Your task to perform on an android device: Do I have any events today? Image 0: 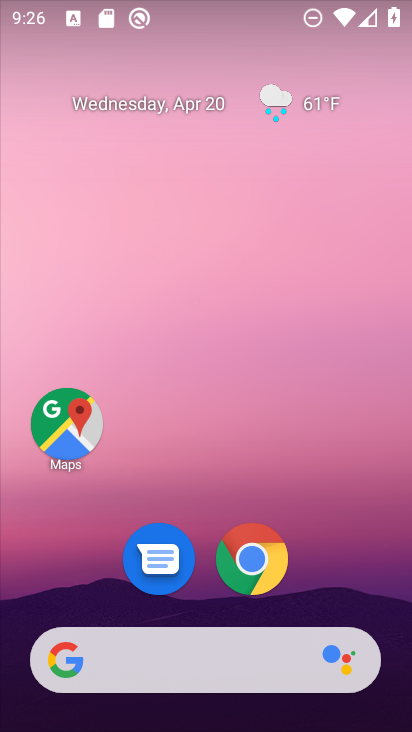
Step 0: drag from (381, 593) to (250, 69)
Your task to perform on an android device: Do I have any events today? Image 1: 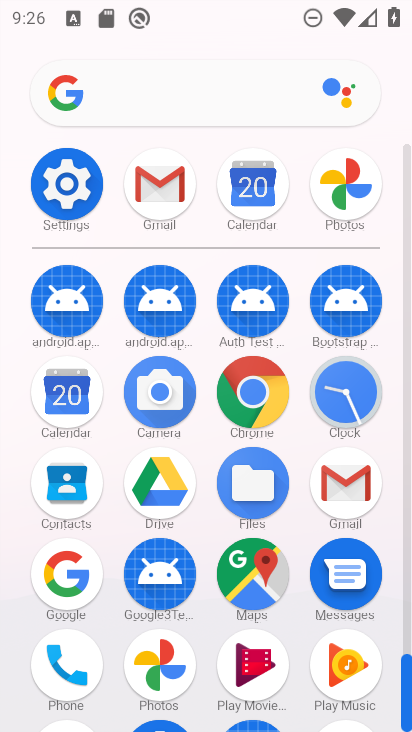
Step 1: click (64, 395)
Your task to perform on an android device: Do I have any events today? Image 2: 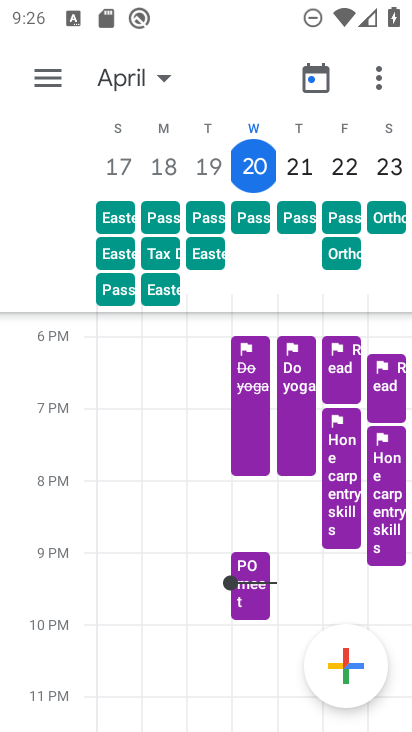
Step 2: click (42, 74)
Your task to perform on an android device: Do I have any events today? Image 3: 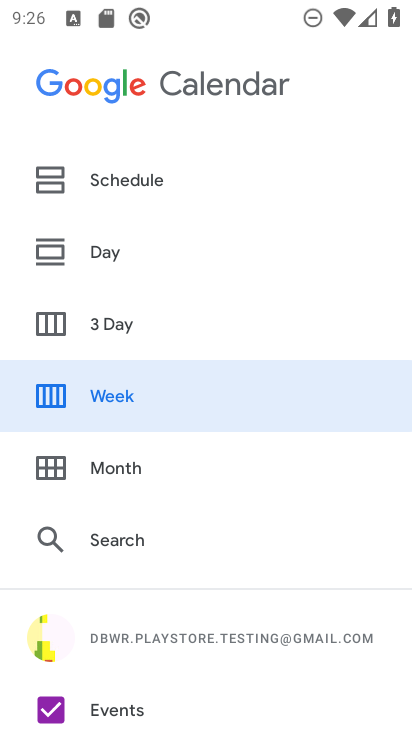
Step 3: click (109, 239)
Your task to perform on an android device: Do I have any events today? Image 4: 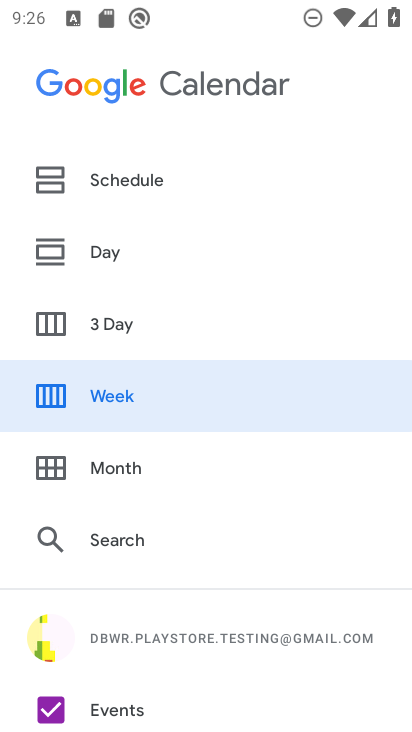
Step 4: click (105, 255)
Your task to perform on an android device: Do I have any events today? Image 5: 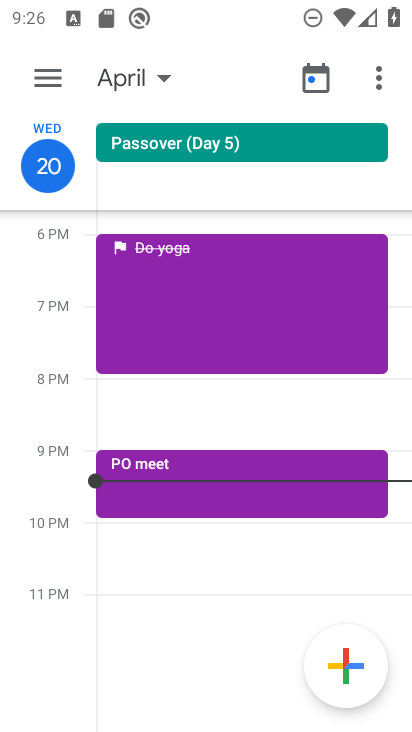
Step 5: task complete